Your task to perform on an android device: toggle notification dots Image 0: 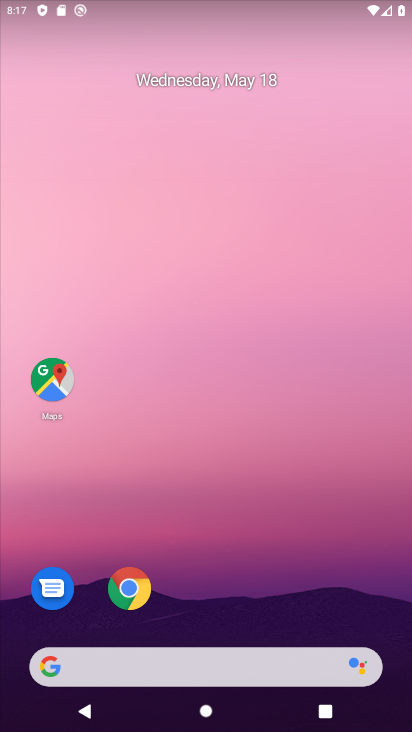
Step 0: drag from (242, 585) to (250, 29)
Your task to perform on an android device: toggle notification dots Image 1: 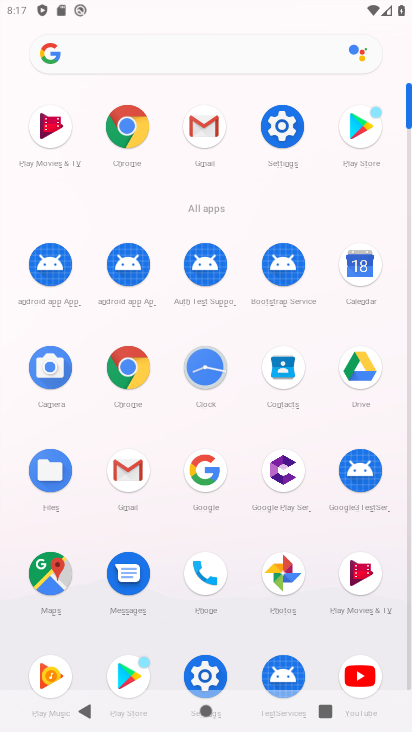
Step 1: click (276, 127)
Your task to perform on an android device: toggle notification dots Image 2: 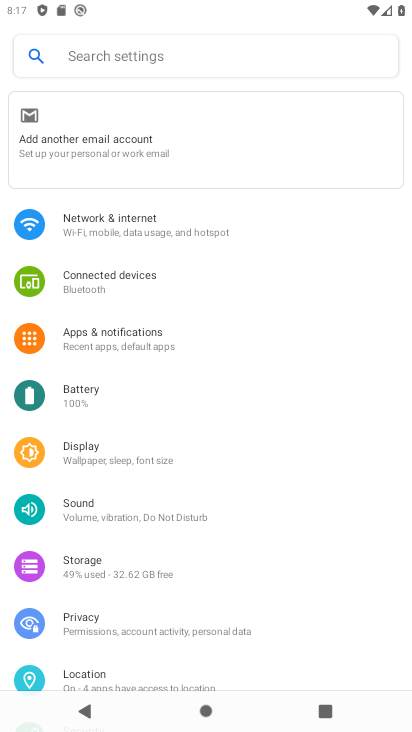
Step 2: click (88, 344)
Your task to perform on an android device: toggle notification dots Image 3: 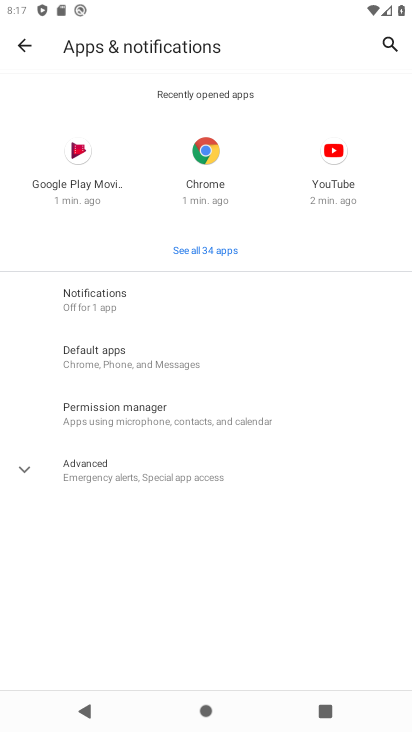
Step 3: click (88, 307)
Your task to perform on an android device: toggle notification dots Image 4: 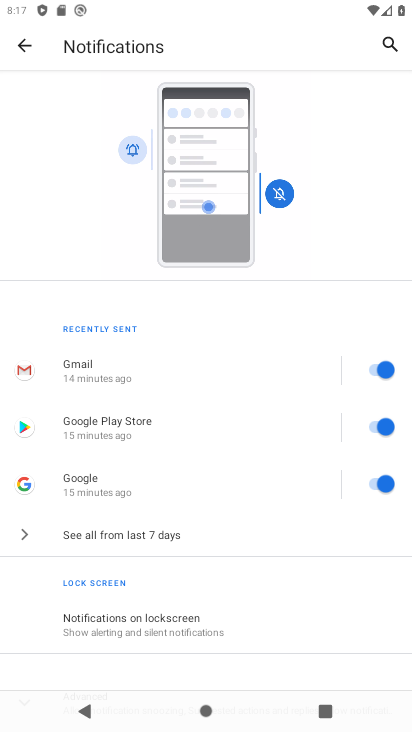
Step 4: drag from (92, 575) to (95, 361)
Your task to perform on an android device: toggle notification dots Image 5: 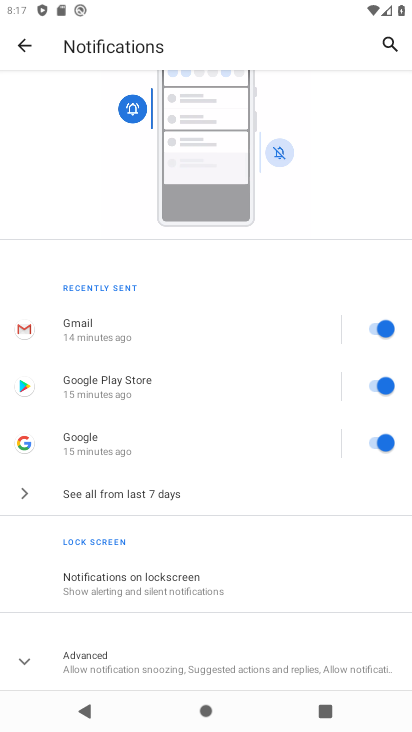
Step 5: click (22, 666)
Your task to perform on an android device: toggle notification dots Image 6: 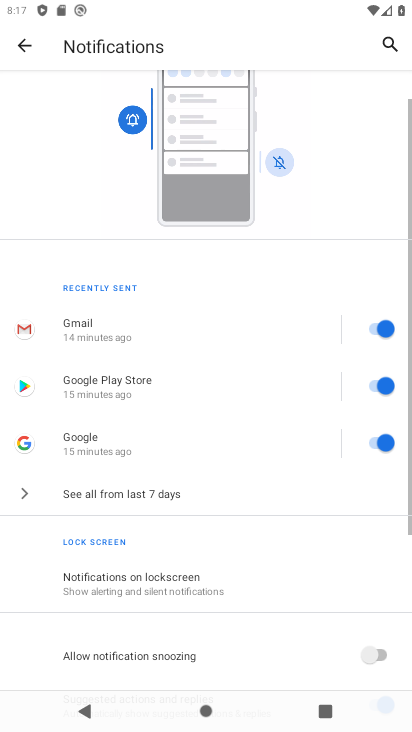
Step 6: drag from (141, 344) to (141, 211)
Your task to perform on an android device: toggle notification dots Image 7: 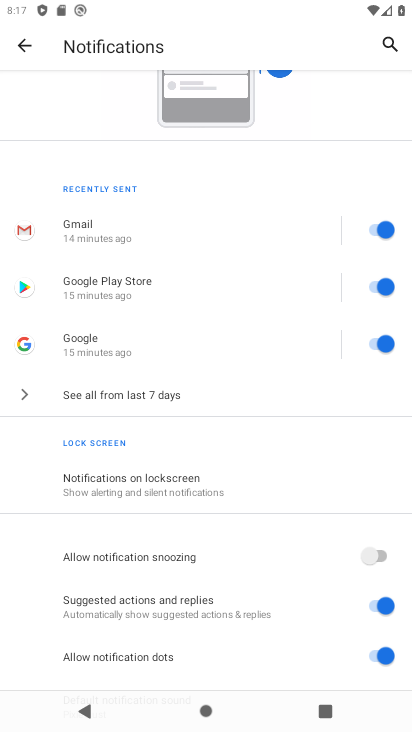
Step 7: click (380, 659)
Your task to perform on an android device: toggle notification dots Image 8: 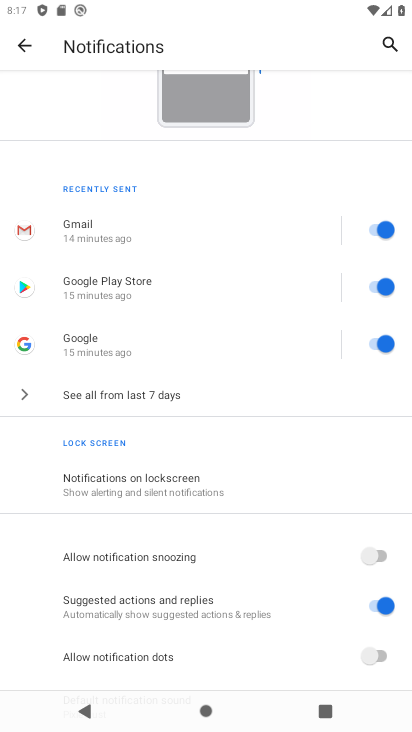
Step 8: task complete